Your task to perform on an android device: Open privacy settings Image 0: 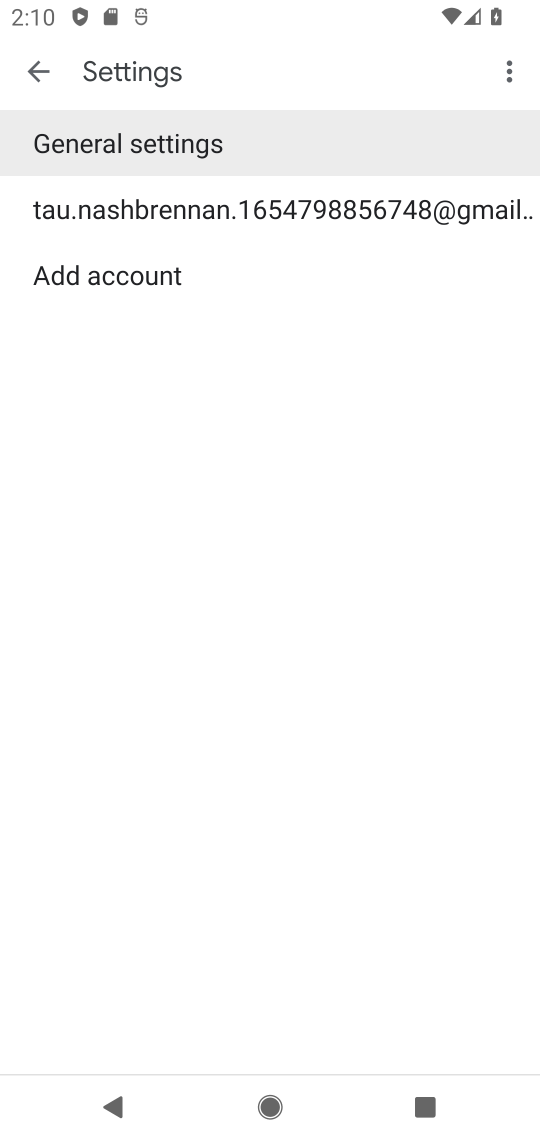
Step 0: press home button
Your task to perform on an android device: Open privacy settings Image 1: 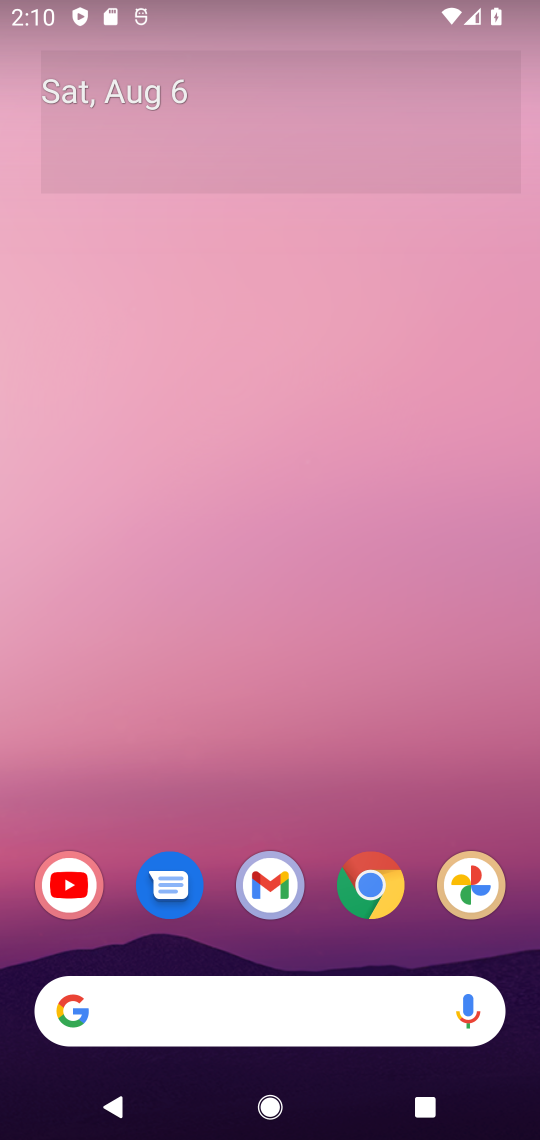
Step 1: drag from (498, 1005) to (348, 60)
Your task to perform on an android device: Open privacy settings Image 2: 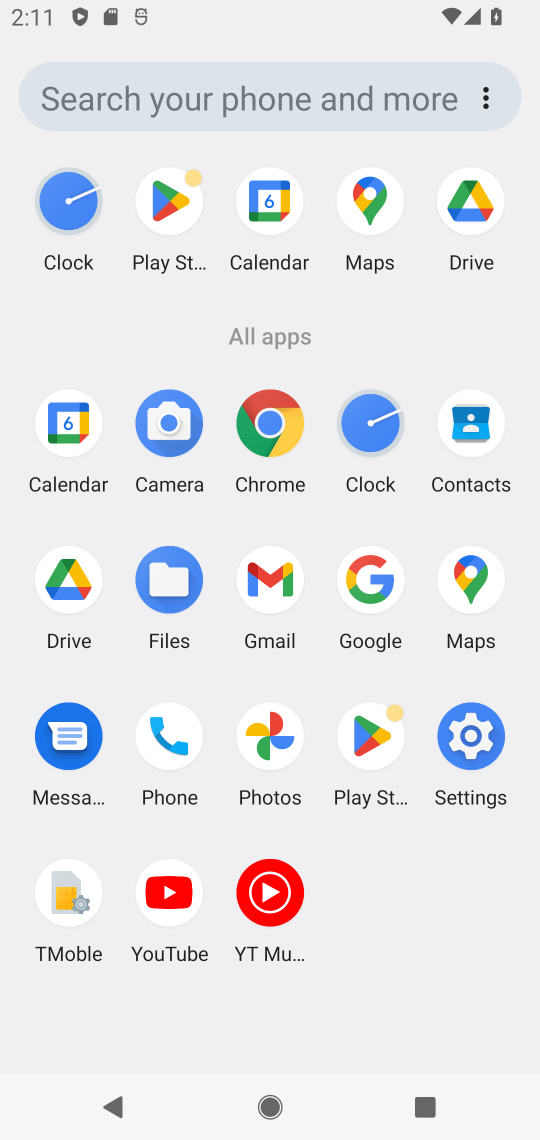
Step 2: click (485, 745)
Your task to perform on an android device: Open privacy settings Image 3: 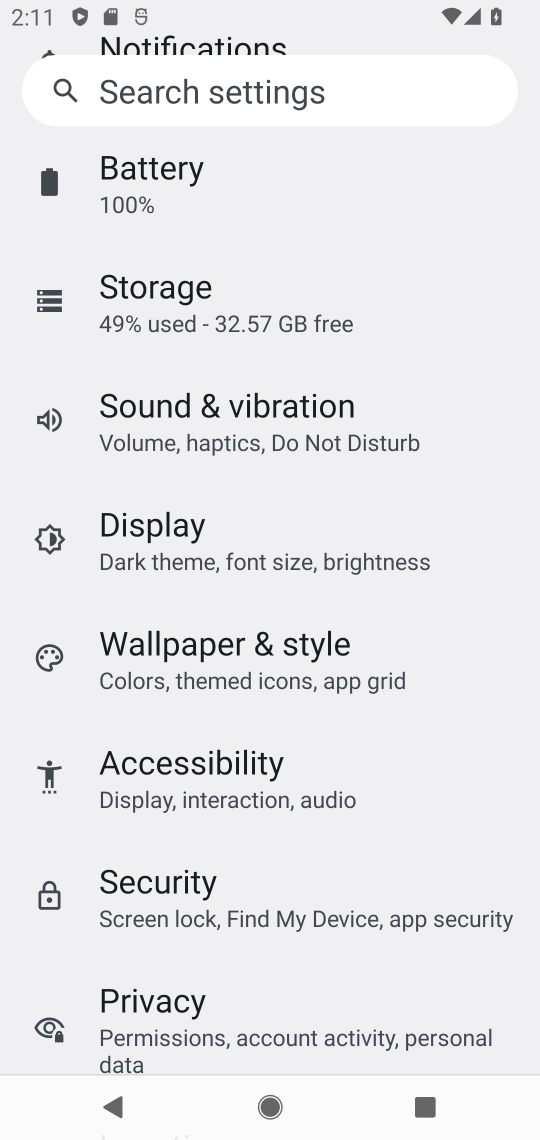
Step 3: click (213, 1013)
Your task to perform on an android device: Open privacy settings Image 4: 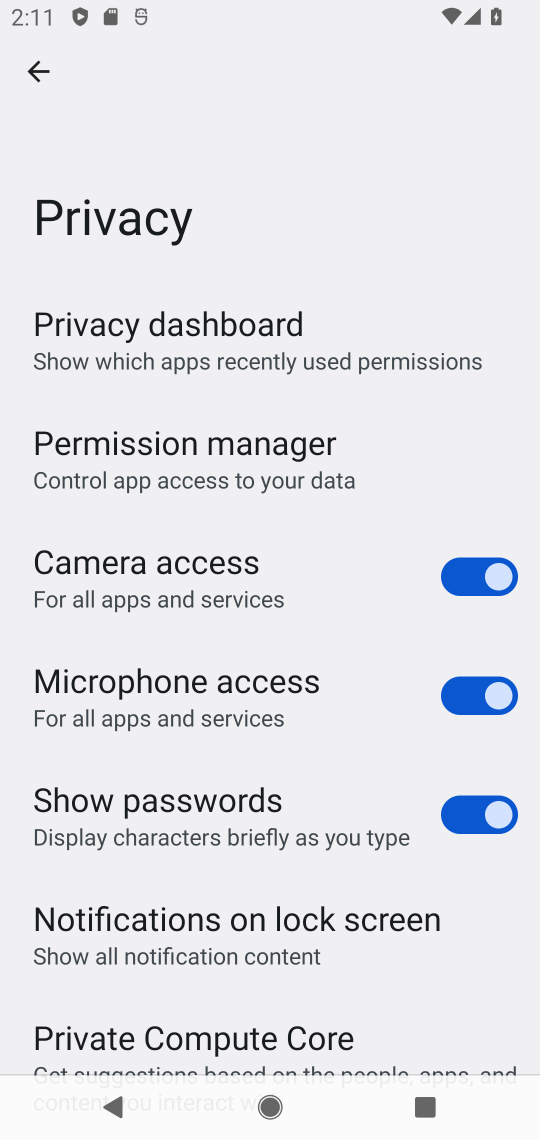
Step 4: task complete